Your task to perform on an android device: Open the web browser Image 0: 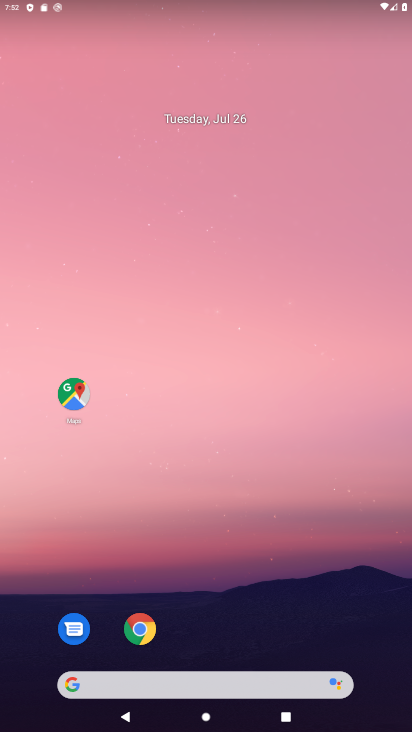
Step 0: press home button
Your task to perform on an android device: Open the web browser Image 1: 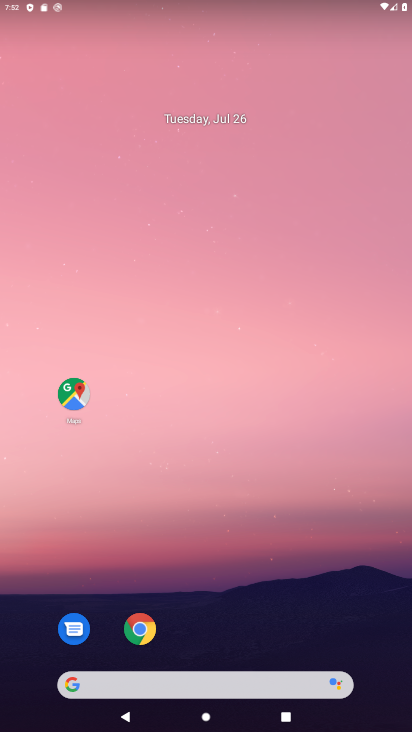
Step 1: click (138, 625)
Your task to perform on an android device: Open the web browser Image 2: 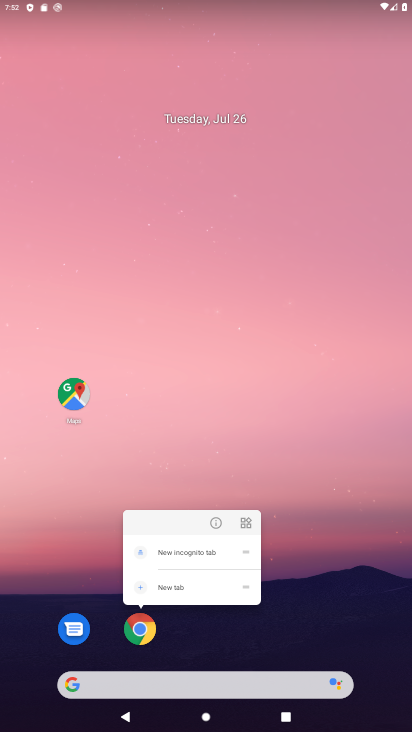
Step 2: click (137, 618)
Your task to perform on an android device: Open the web browser Image 3: 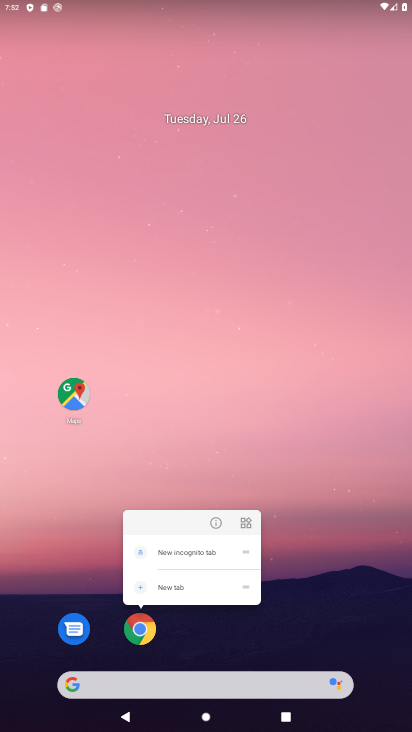
Step 3: click (135, 626)
Your task to perform on an android device: Open the web browser Image 4: 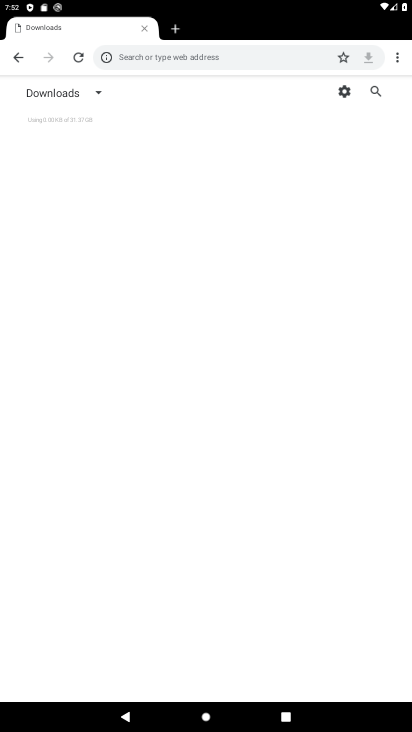
Step 4: click (172, 29)
Your task to perform on an android device: Open the web browser Image 5: 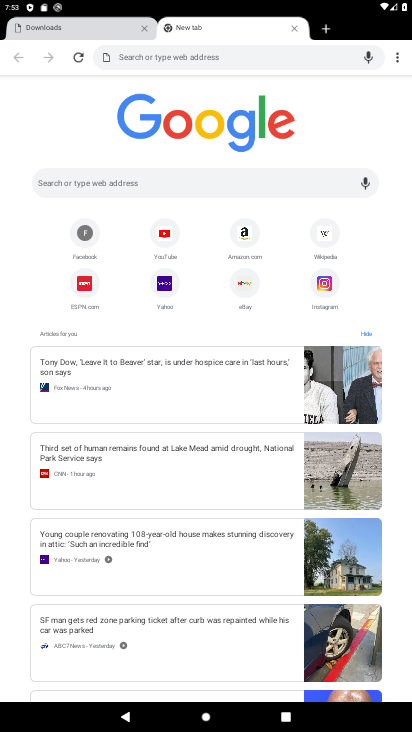
Step 5: task complete